Your task to perform on an android device: Go to location settings Image 0: 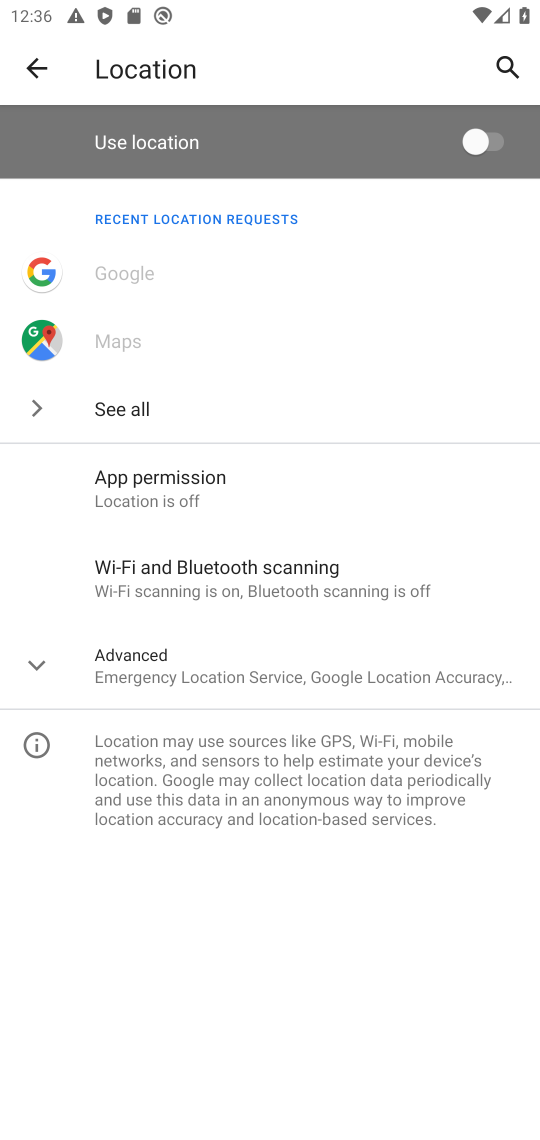
Step 0: press home button
Your task to perform on an android device: Go to location settings Image 1: 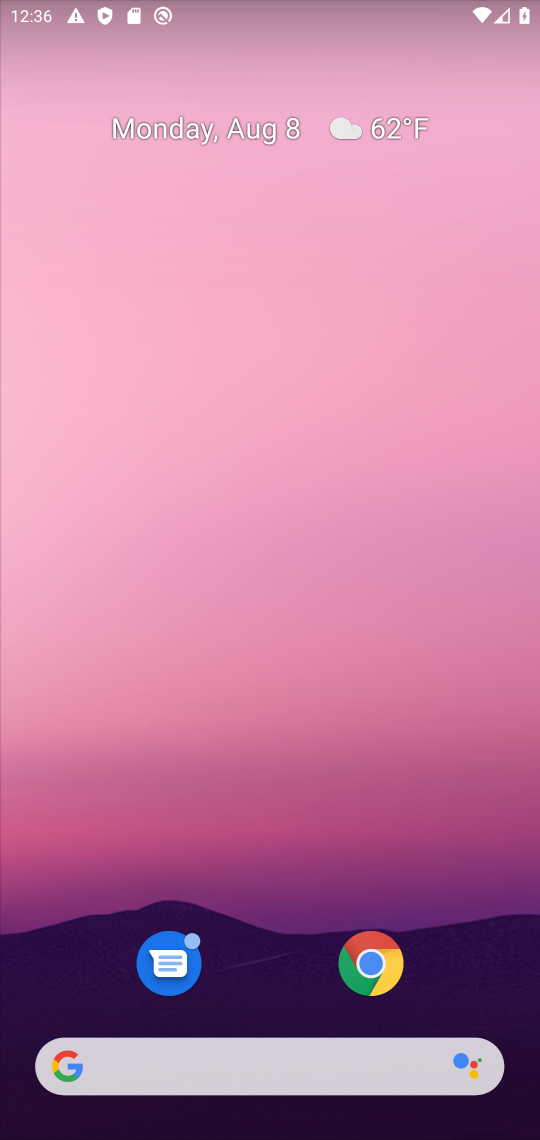
Step 1: drag from (454, 977) to (306, 61)
Your task to perform on an android device: Go to location settings Image 2: 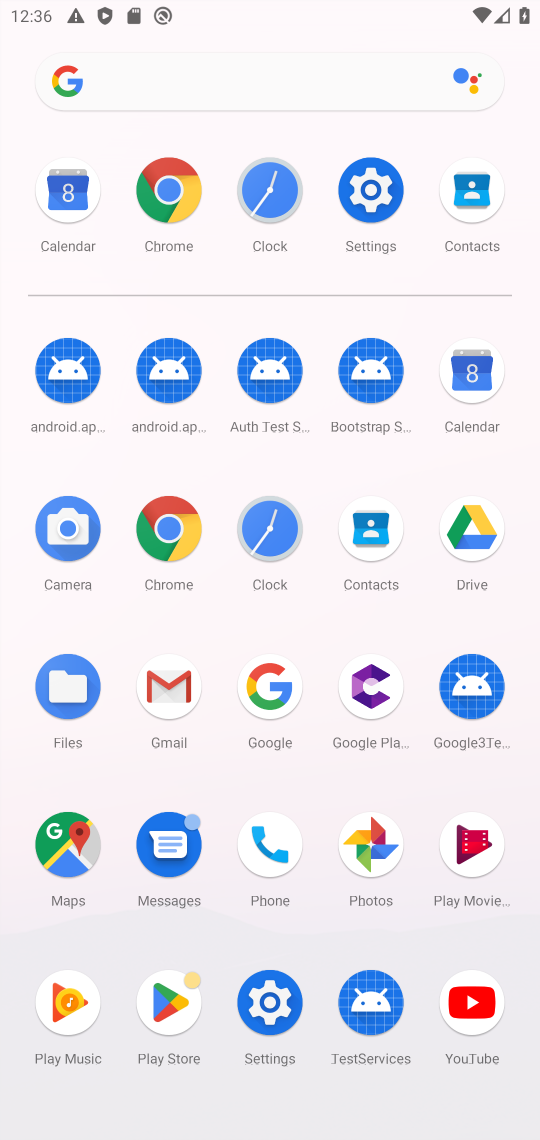
Step 2: click (294, 1012)
Your task to perform on an android device: Go to location settings Image 3: 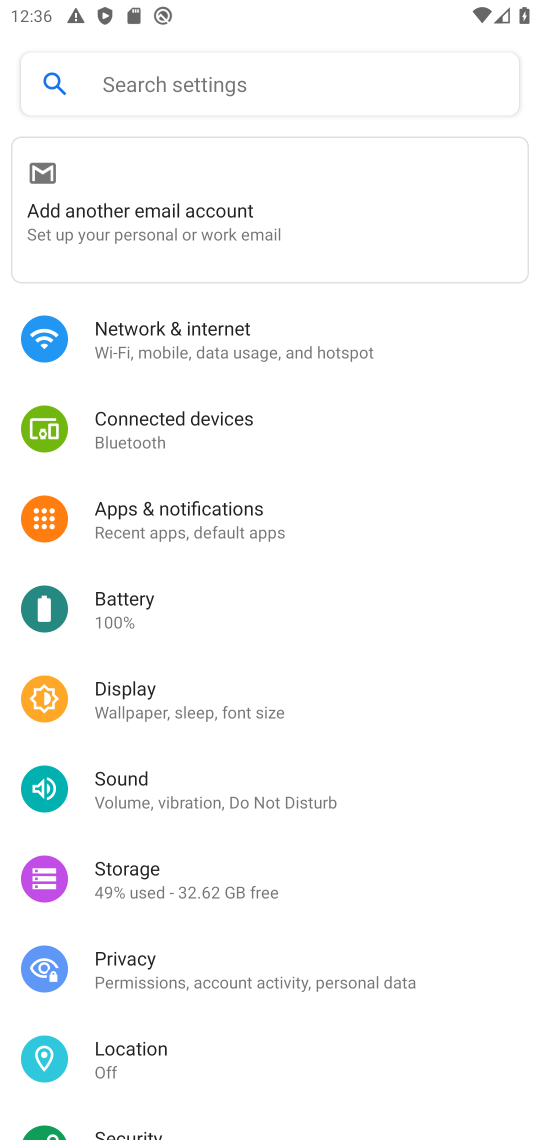
Step 3: click (160, 1049)
Your task to perform on an android device: Go to location settings Image 4: 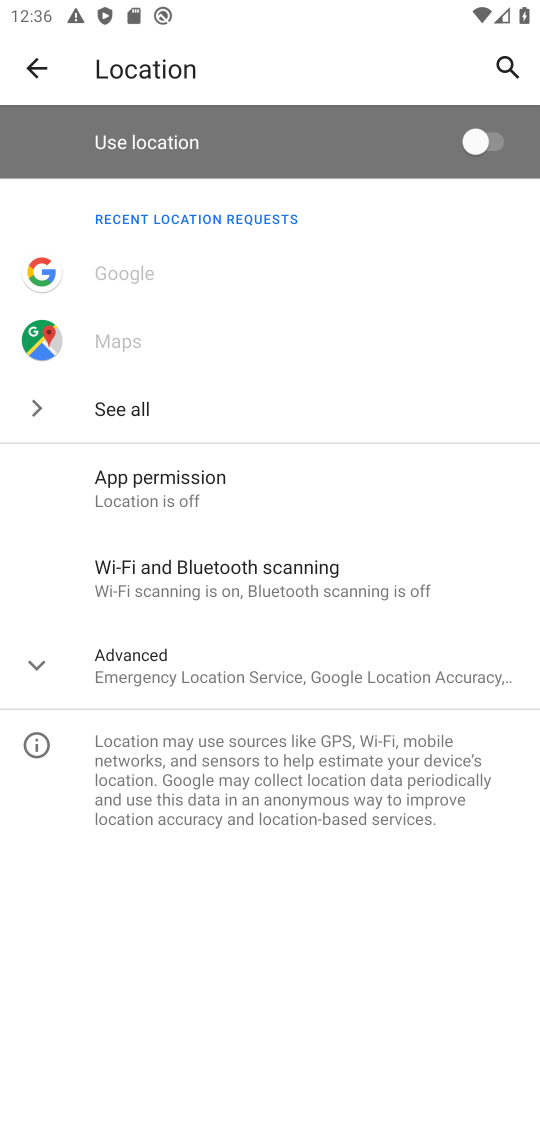
Step 4: task complete